Your task to perform on an android device: Nike Air Max 2020 shoes on Nike.com Image 0: 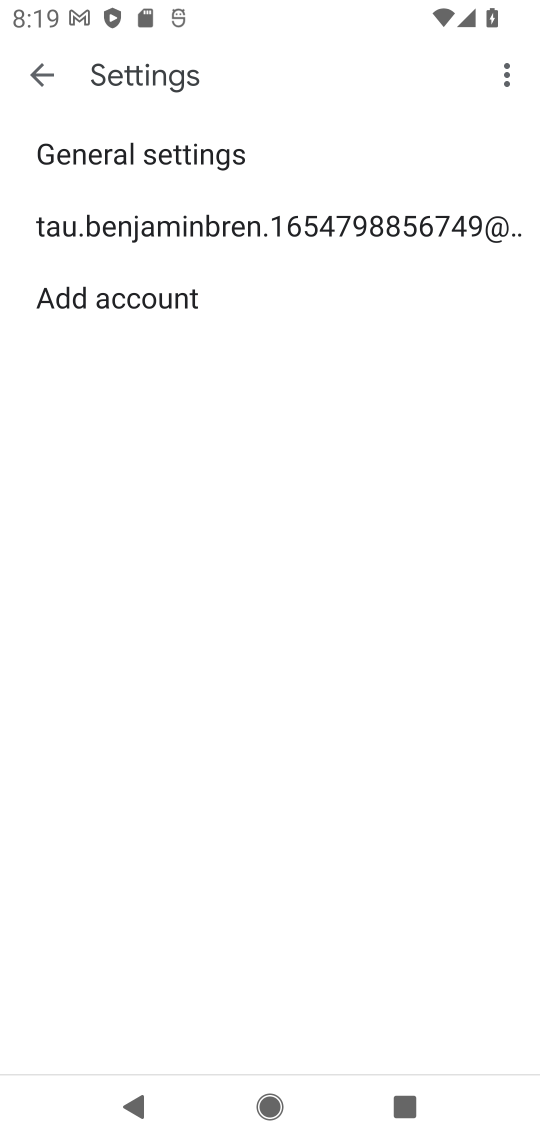
Step 0: press home button
Your task to perform on an android device: Nike Air Max 2020 shoes on Nike.com Image 1: 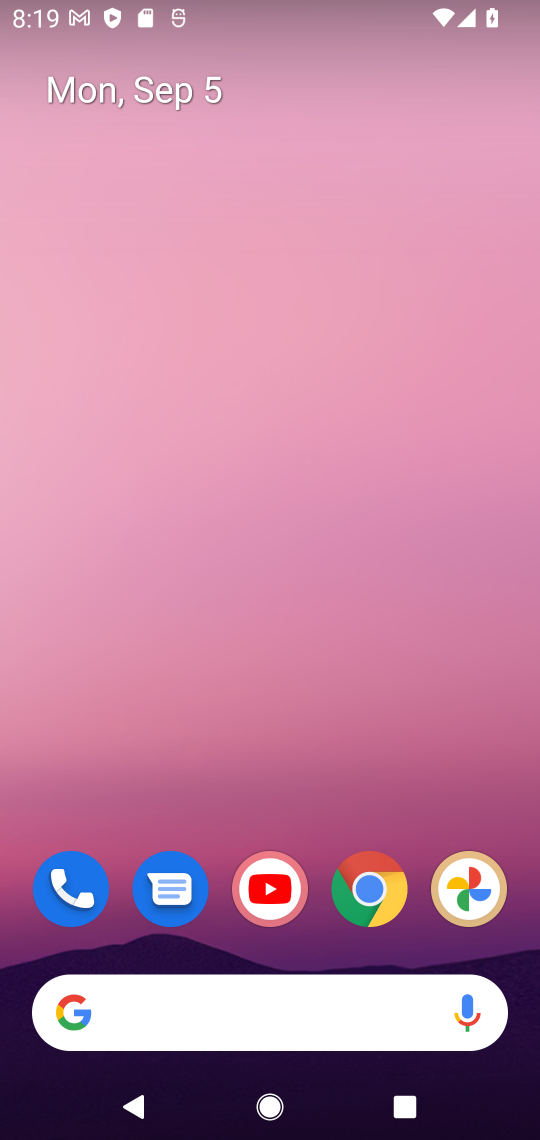
Step 1: click (211, 996)
Your task to perform on an android device: Nike Air Max 2020 shoes on Nike.com Image 2: 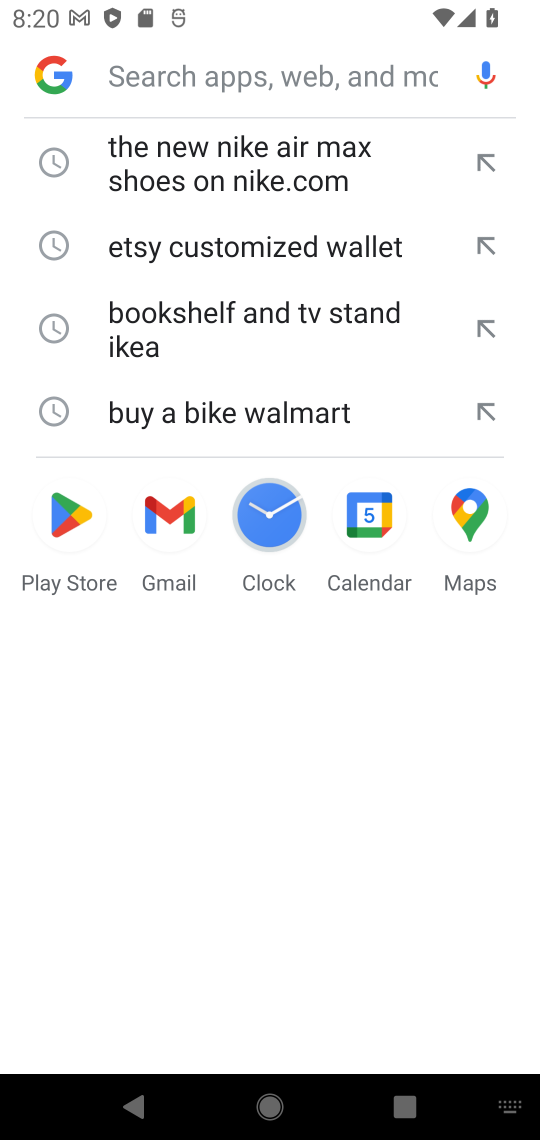
Step 2: type "Nike Air Max 2020 shoes on Nike.com"
Your task to perform on an android device: Nike Air Max 2020 shoes on Nike.com Image 3: 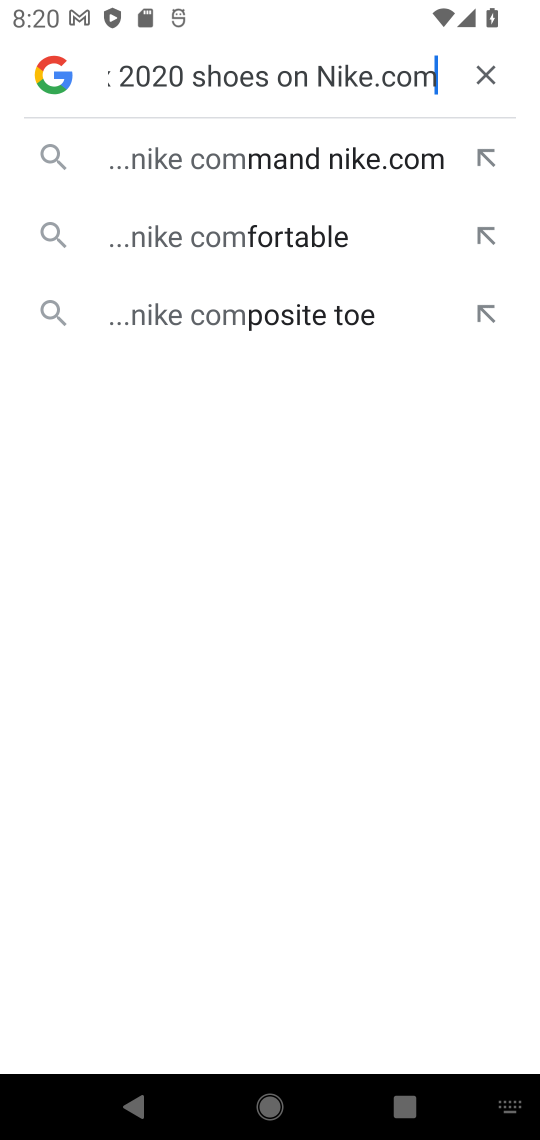
Step 3: click (319, 146)
Your task to perform on an android device: Nike Air Max 2020 shoes on Nike.com Image 4: 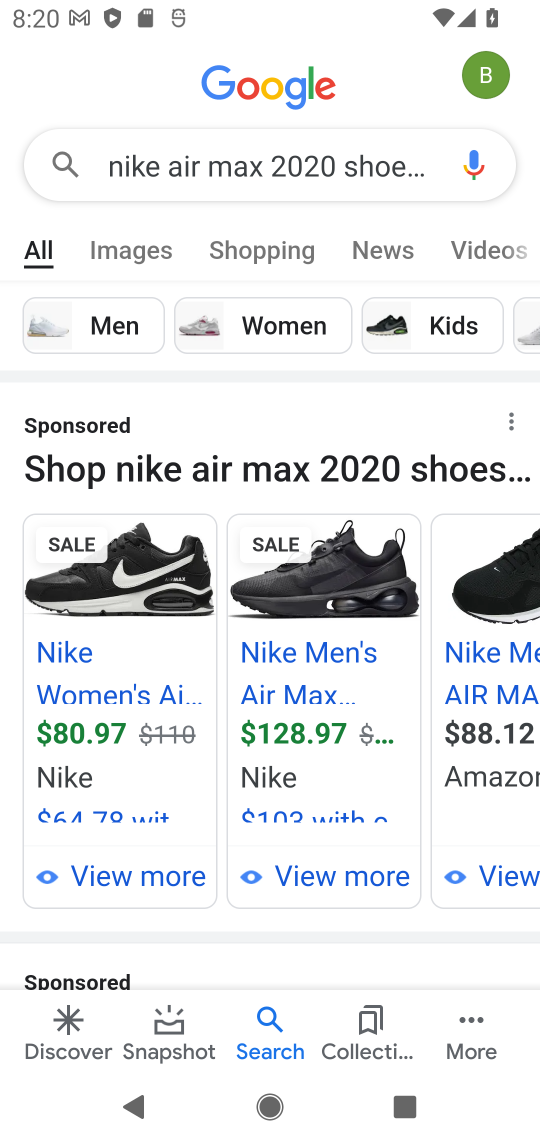
Step 4: task complete